Your task to perform on an android device: toggle priority inbox in the gmail app Image 0: 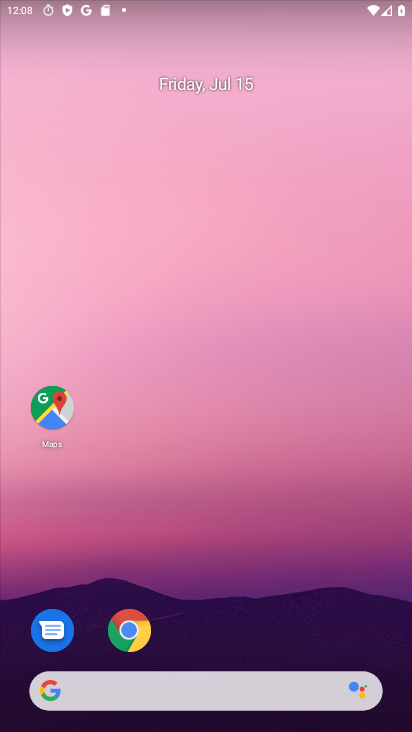
Step 0: click (244, 271)
Your task to perform on an android device: toggle priority inbox in the gmail app Image 1: 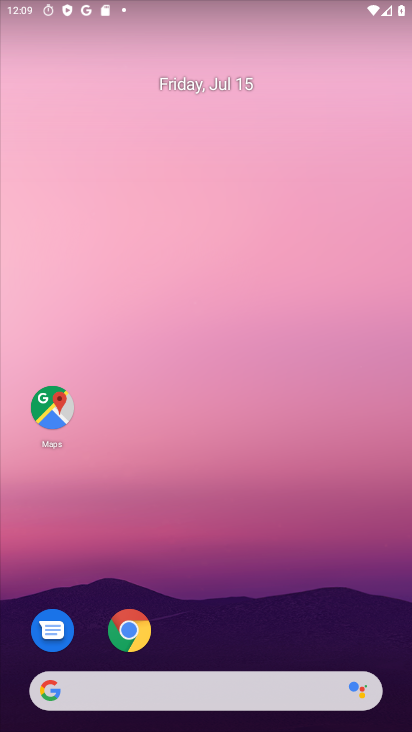
Step 1: drag from (191, 619) to (256, 295)
Your task to perform on an android device: toggle priority inbox in the gmail app Image 2: 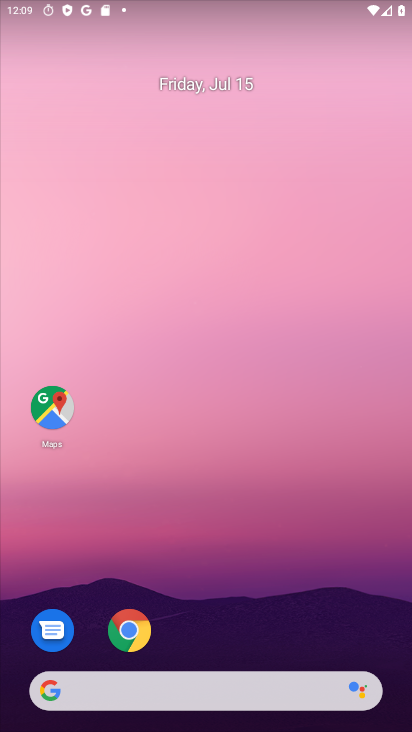
Step 2: drag from (191, 615) to (251, 191)
Your task to perform on an android device: toggle priority inbox in the gmail app Image 3: 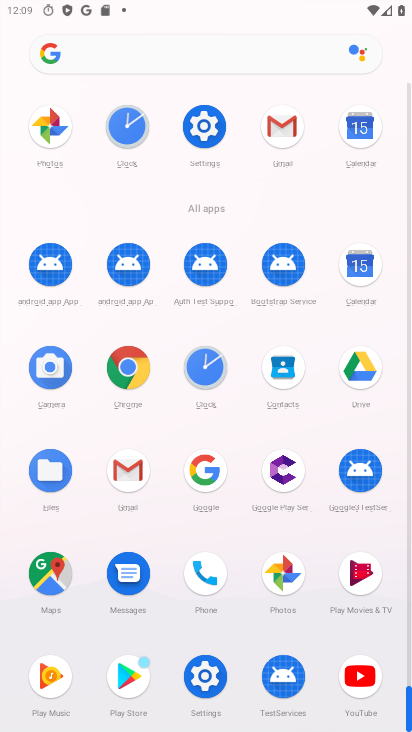
Step 3: click (129, 456)
Your task to perform on an android device: toggle priority inbox in the gmail app Image 4: 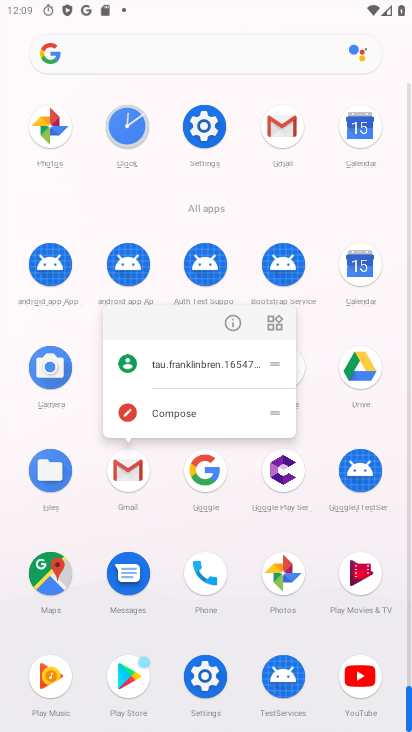
Step 4: click (233, 317)
Your task to perform on an android device: toggle priority inbox in the gmail app Image 5: 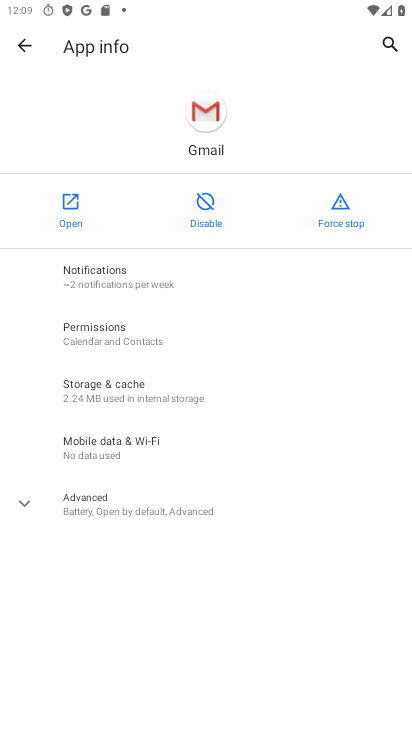
Step 5: click (68, 196)
Your task to perform on an android device: toggle priority inbox in the gmail app Image 6: 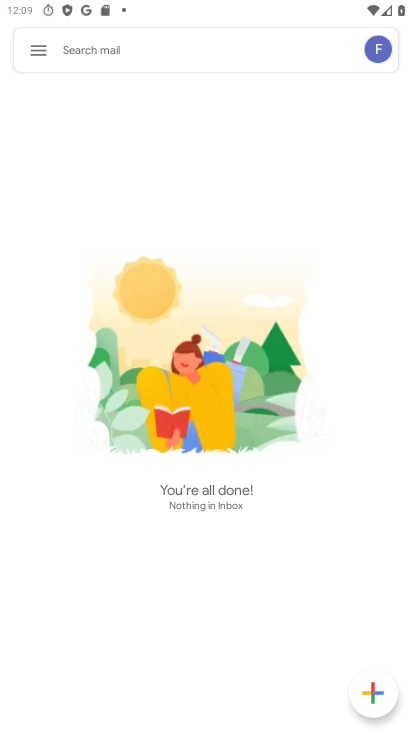
Step 6: drag from (279, 554) to (231, 398)
Your task to perform on an android device: toggle priority inbox in the gmail app Image 7: 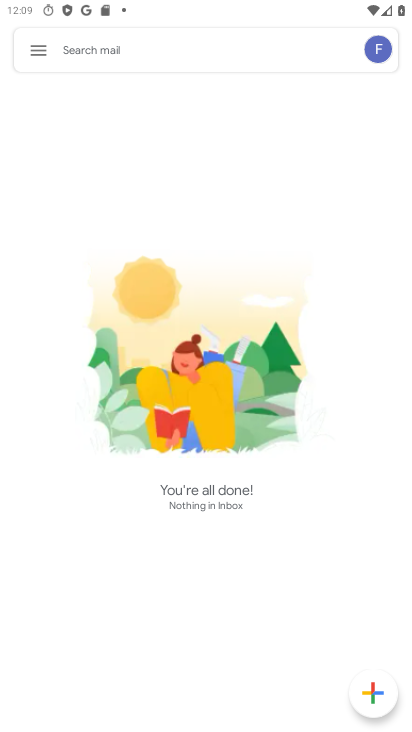
Step 7: click (37, 66)
Your task to perform on an android device: toggle priority inbox in the gmail app Image 8: 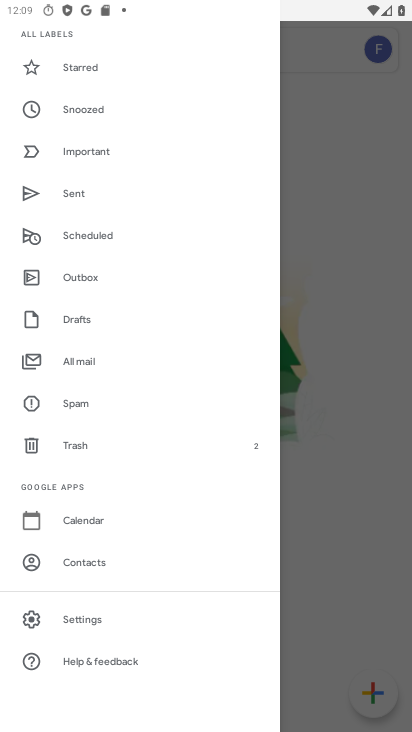
Step 8: click (86, 611)
Your task to perform on an android device: toggle priority inbox in the gmail app Image 9: 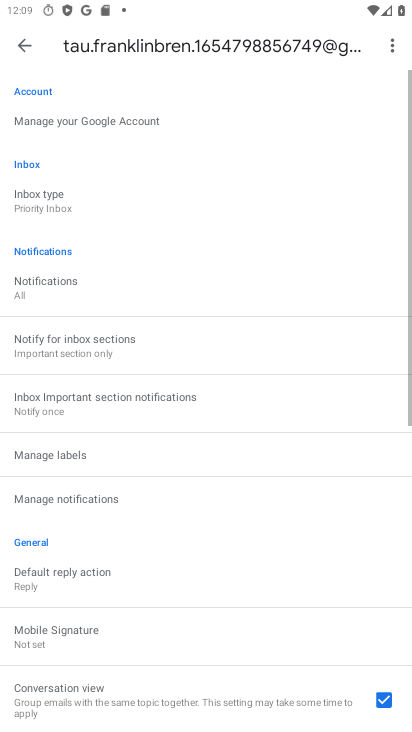
Step 9: click (55, 195)
Your task to perform on an android device: toggle priority inbox in the gmail app Image 10: 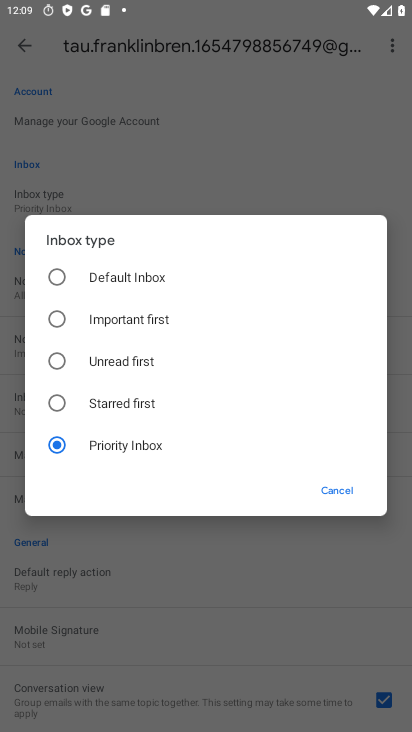
Step 10: click (88, 282)
Your task to perform on an android device: toggle priority inbox in the gmail app Image 11: 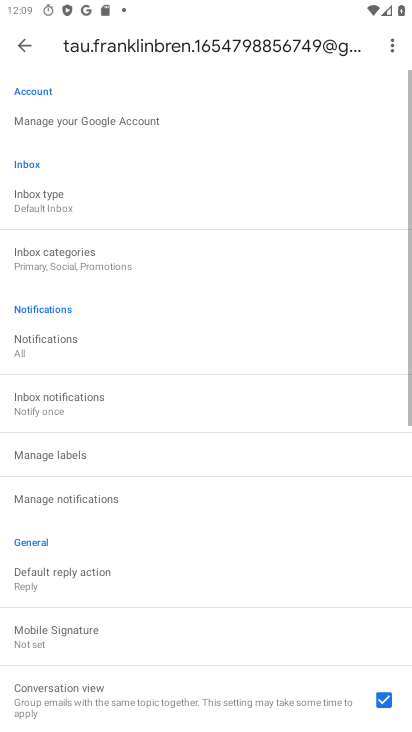
Step 11: task complete